Your task to perform on an android device: Open Chrome and go to settings Image 0: 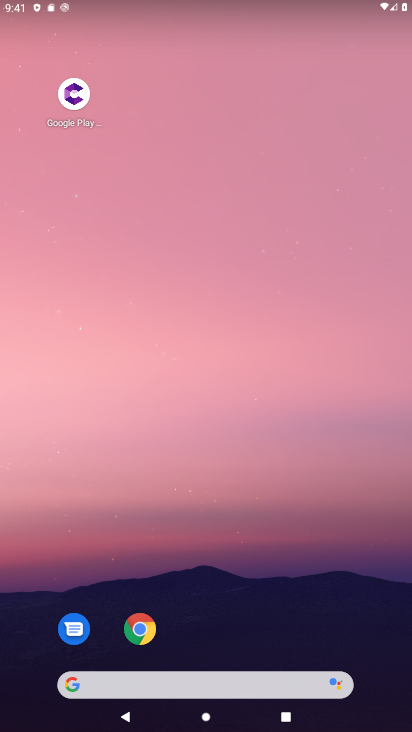
Step 0: click (145, 632)
Your task to perform on an android device: Open Chrome and go to settings Image 1: 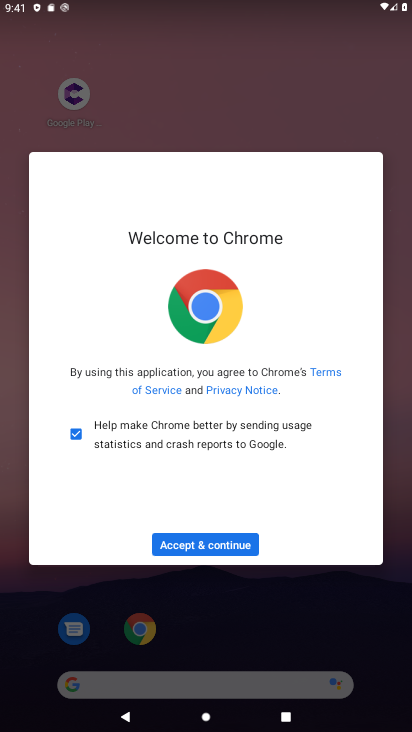
Step 1: click (202, 549)
Your task to perform on an android device: Open Chrome and go to settings Image 2: 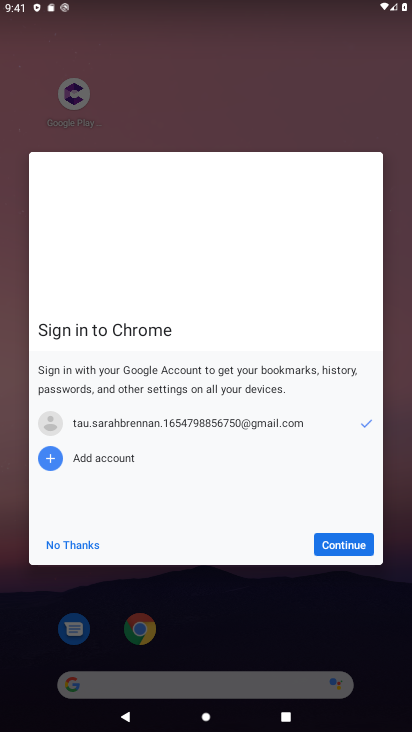
Step 2: click (334, 555)
Your task to perform on an android device: Open Chrome and go to settings Image 3: 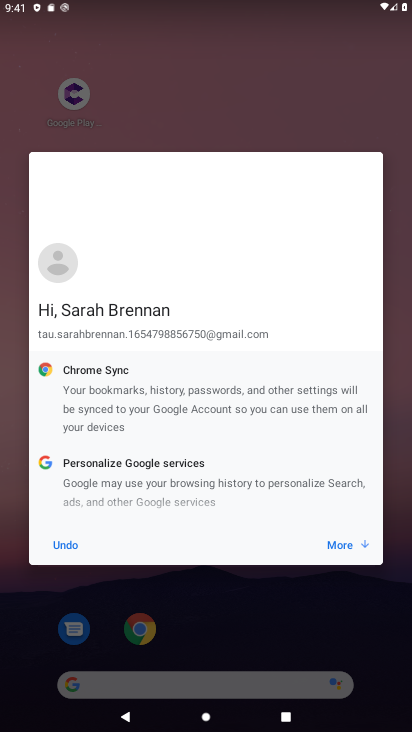
Step 3: click (342, 546)
Your task to perform on an android device: Open Chrome and go to settings Image 4: 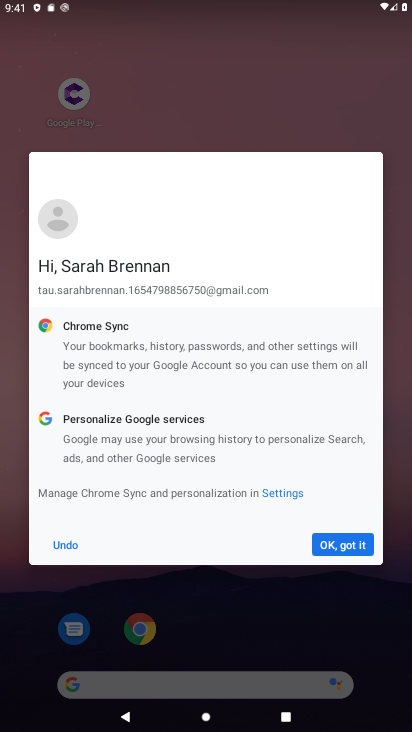
Step 4: click (342, 546)
Your task to perform on an android device: Open Chrome and go to settings Image 5: 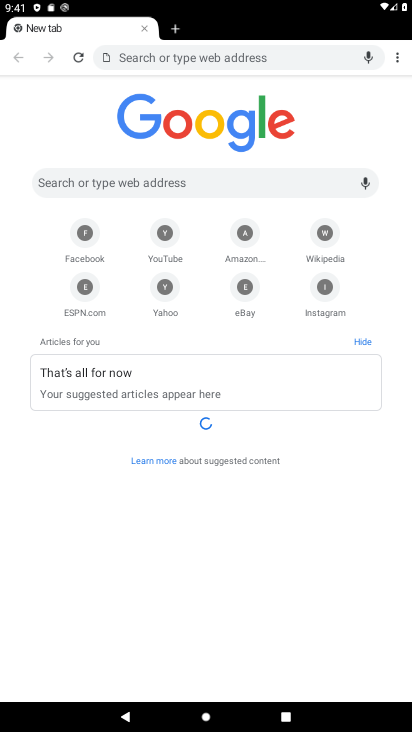
Step 5: click (398, 57)
Your task to perform on an android device: Open Chrome and go to settings Image 6: 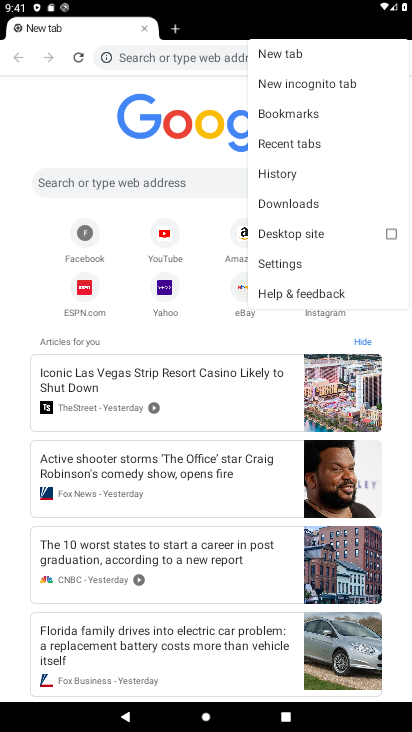
Step 6: click (278, 264)
Your task to perform on an android device: Open Chrome and go to settings Image 7: 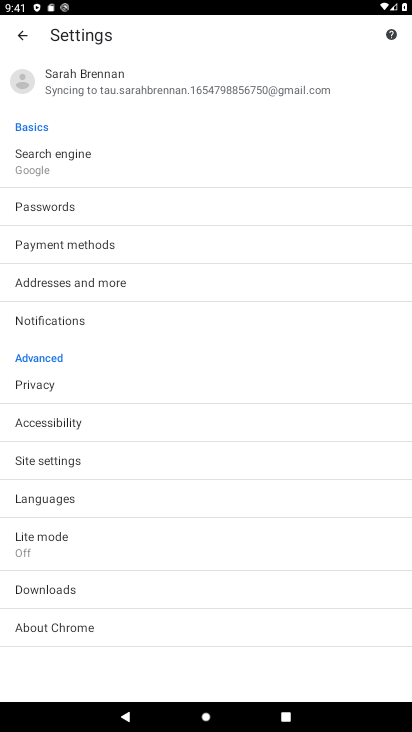
Step 7: task complete